Your task to perform on an android device: add a label to a message in the gmail app Image 0: 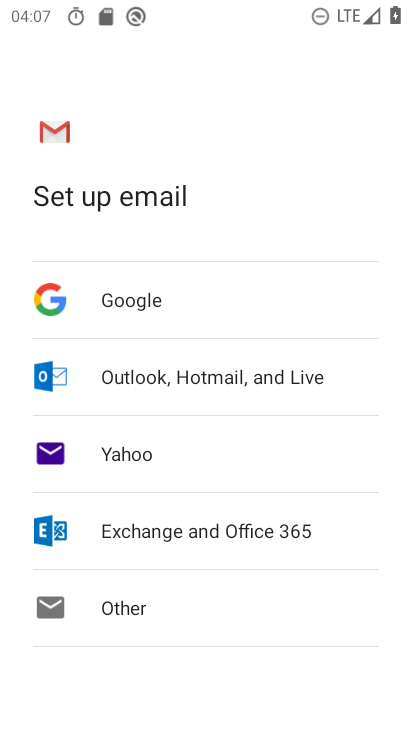
Step 0: press home button
Your task to perform on an android device: add a label to a message in the gmail app Image 1: 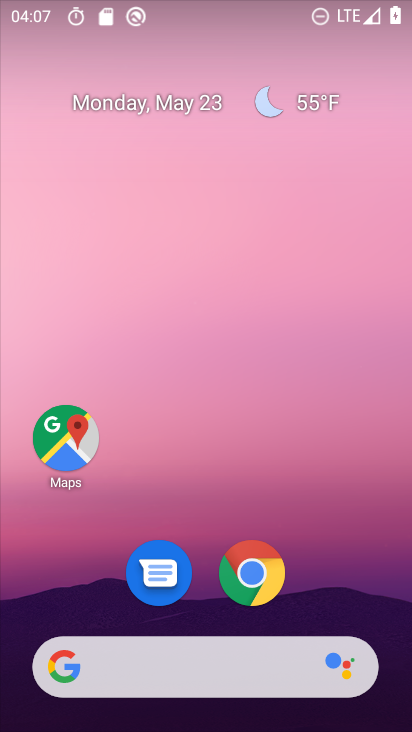
Step 1: drag from (335, 584) to (302, 6)
Your task to perform on an android device: add a label to a message in the gmail app Image 2: 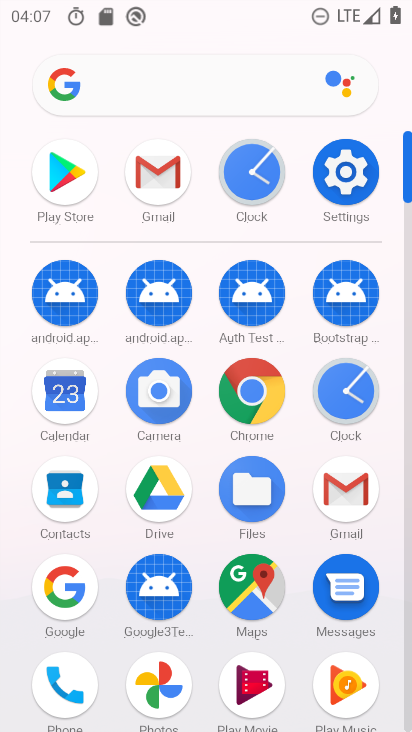
Step 2: click (154, 179)
Your task to perform on an android device: add a label to a message in the gmail app Image 3: 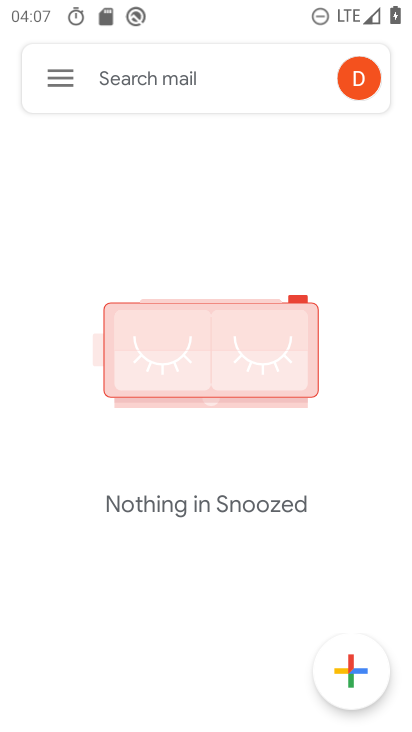
Step 3: click (59, 76)
Your task to perform on an android device: add a label to a message in the gmail app Image 4: 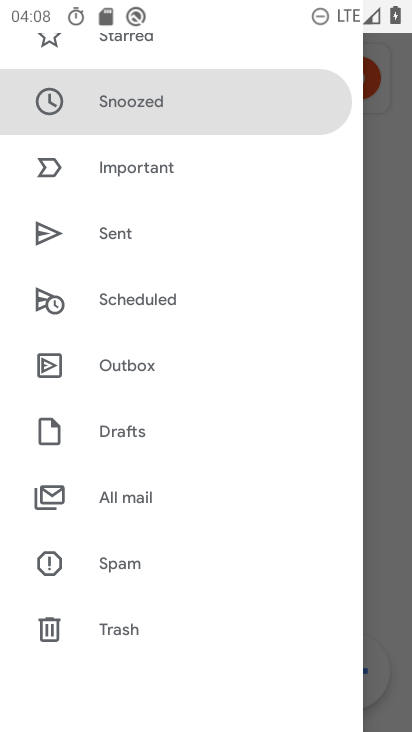
Step 4: drag from (177, 578) to (227, 235)
Your task to perform on an android device: add a label to a message in the gmail app Image 5: 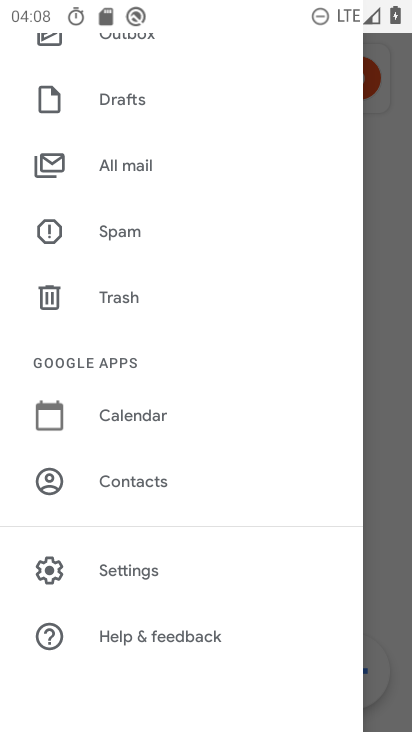
Step 5: click (151, 169)
Your task to perform on an android device: add a label to a message in the gmail app Image 6: 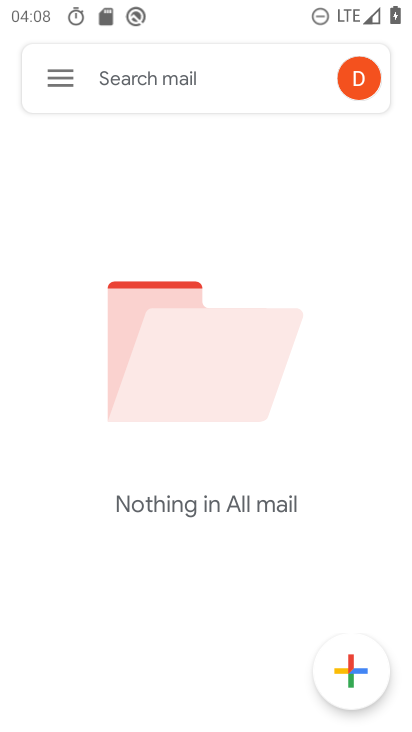
Step 6: task complete